Your task to perform on an android device: Find coffee shops on Maps Image 0: 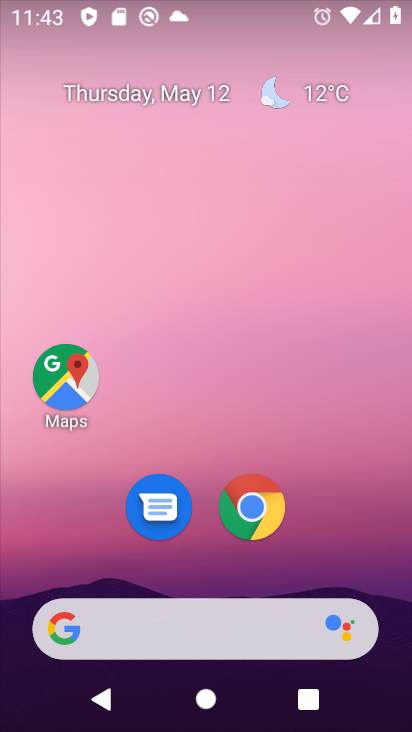
Step 0: click (71, 352)
Your task to perform on an android device: Find coffee shops on Maps Image 1: 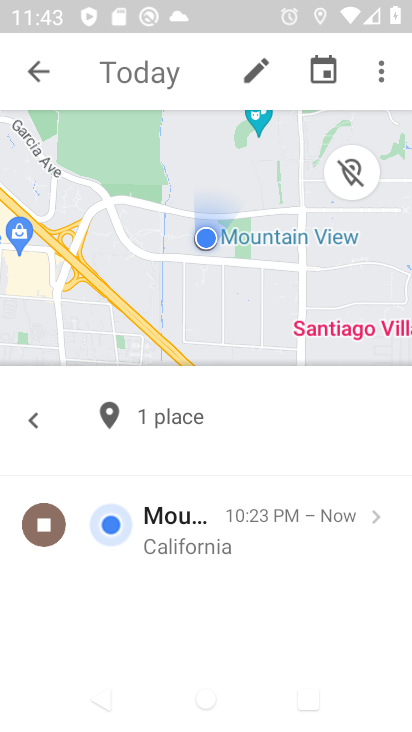
Step 1: click (46, 72)
Your task to perform on an android device: Find coffee shops on Maps Image 2: 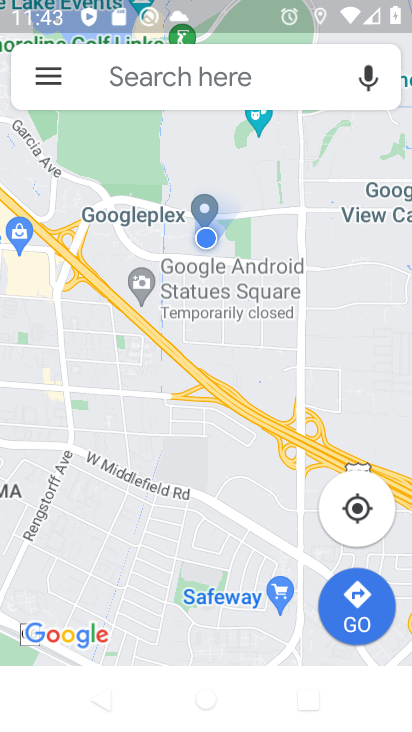
Step 2: click (157, 85)
Your task to perform on an android device: Find coffee shops on Maps Image 3: 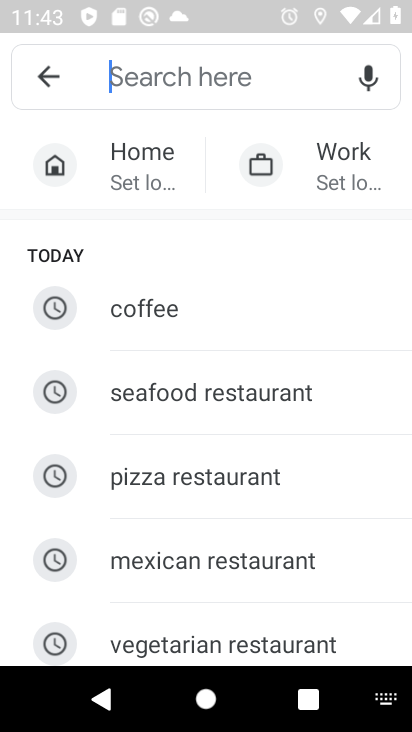
Step 3: type "coffee shops"
Your task to perform on an android device: Find coffee shops on Maps Image 4: 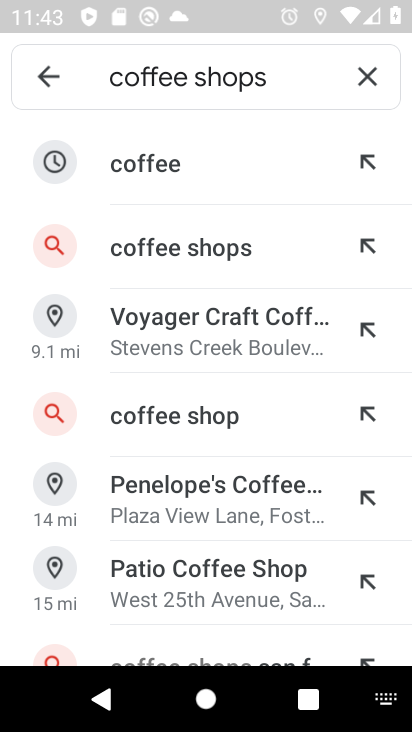
Step 4: click (182, 247)
Your task to perform on an android device: Find coffee shops on Maps Image 5: 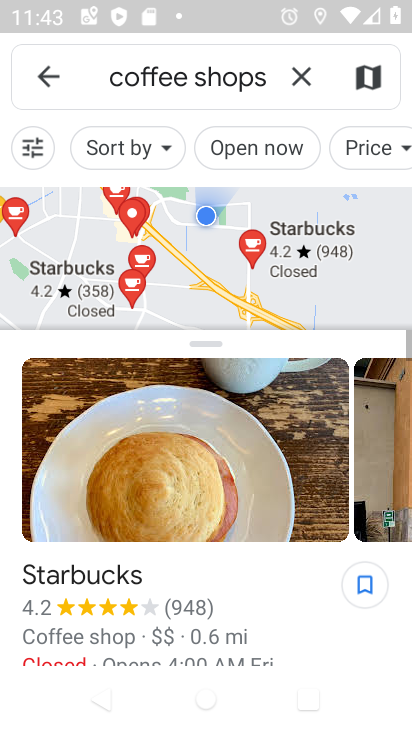
Step 5: task complete